Your task to perform on an android device: See recent photos Image 0: 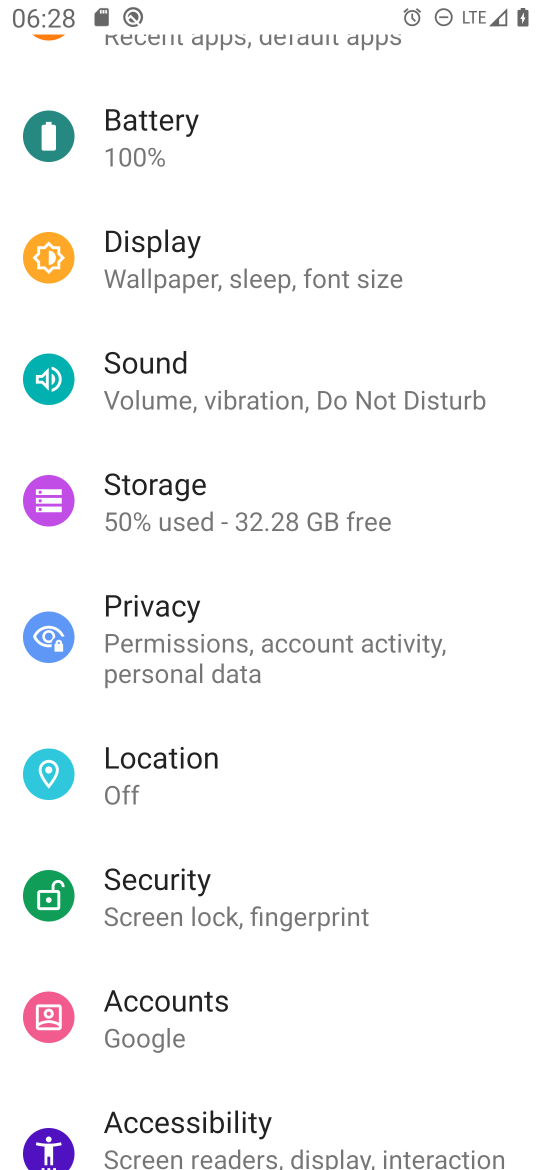
Step 0: press home button
Your task to perform on an android device: See recent photos Image 1: 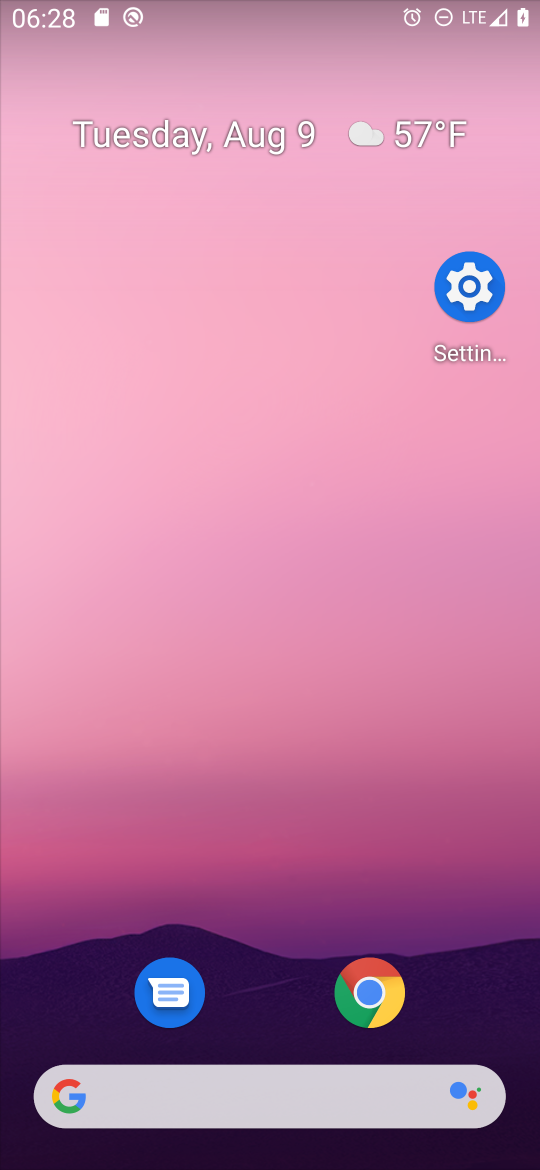
Step 1: drag from (306, 1092) to (273, 347)
Your task to perform on an android device: See recent photos Image 2: 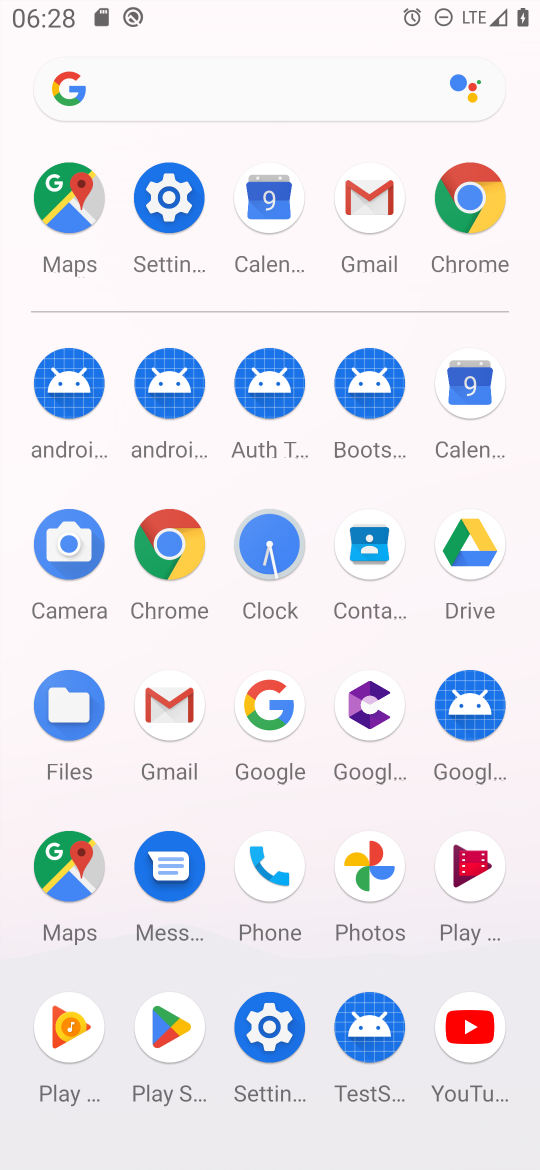
Step 2: click (353, 859)
Your task to perform on an android device: See recent photos Image 3: 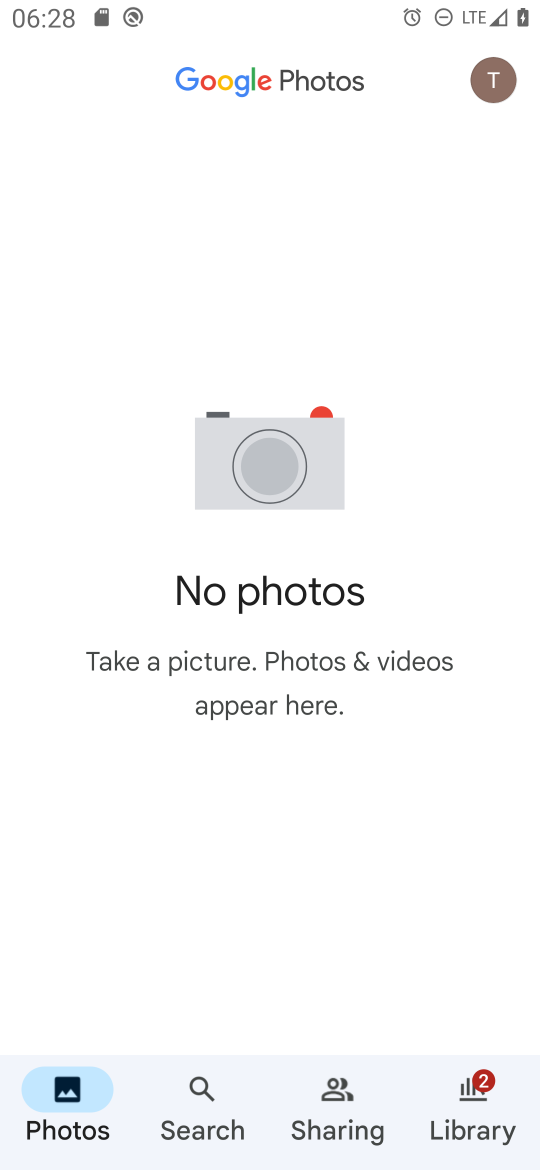
Step 3: task complete